Your task to perform on an android device: install app "Mercado Libre" Image 0: 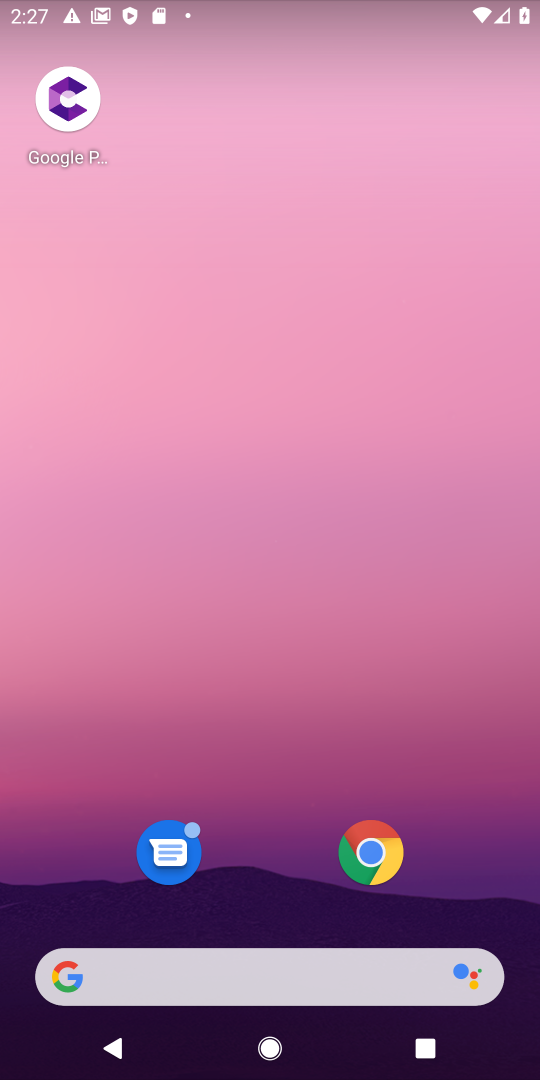
Step 0: drag from (260, 921) to (260, 64)
Your task to perform on an android device: install app "Mercado Libre" Image 1: 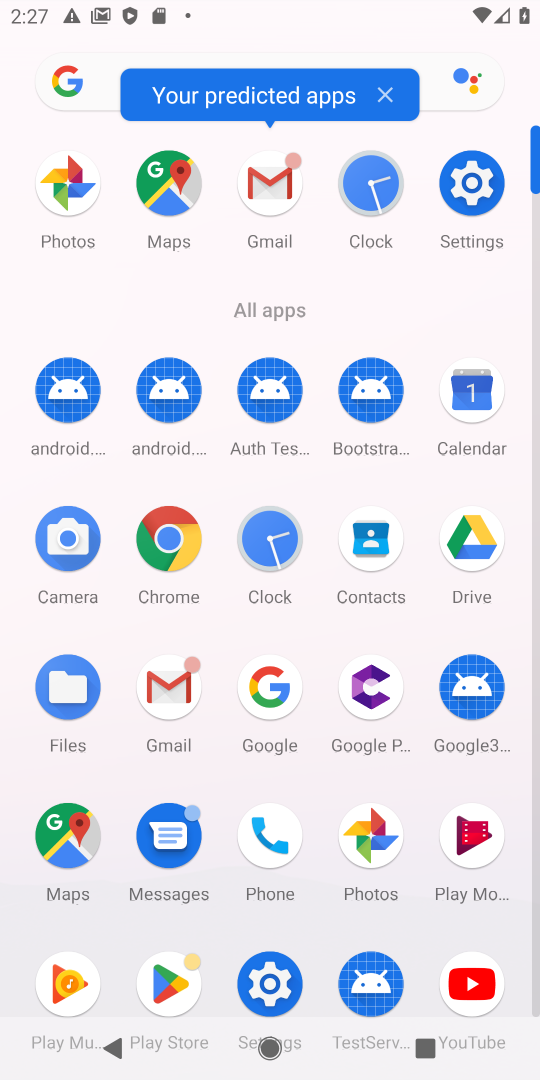
Step 1: click (167, 1010)
Your task to perform on an android device: install app "Mercado Libre" Image 2: 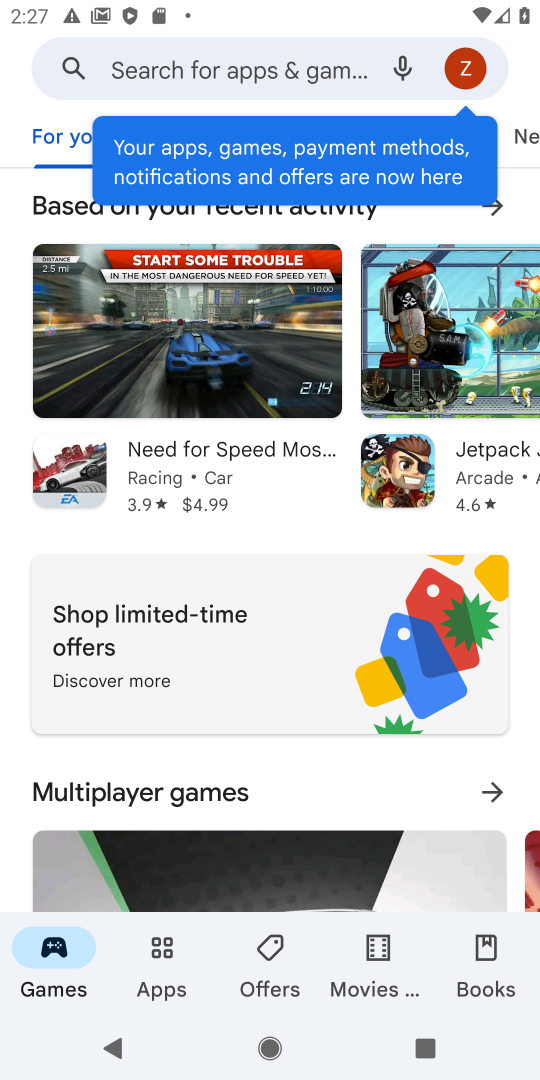
Step 2: click (287, 60)
Your task to perform on an android device: install app "Mercado Libre" Image 3: 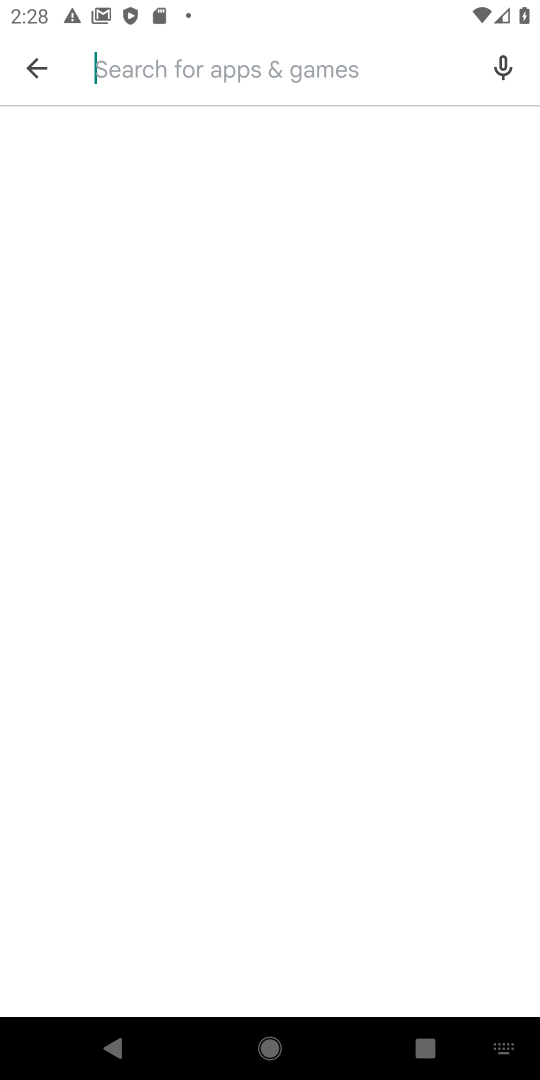
Step 3: type "mercado libre"
Your task to perform on an android device: install app "Mercado Libre" Image 4: 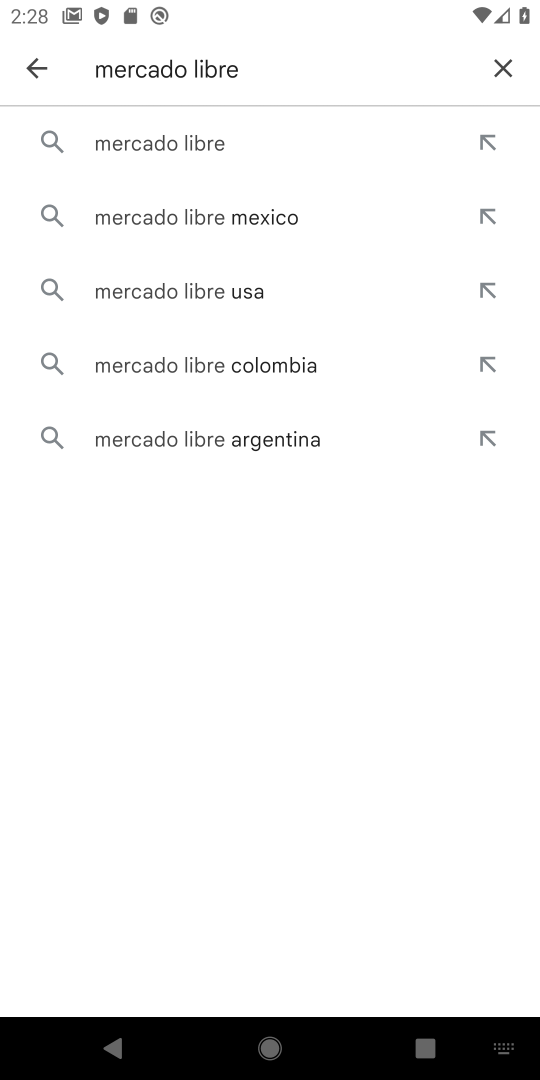
Step 4: click (401, 127)
Your task to perform on an android device: install app "Mercado Libre" Image 5: 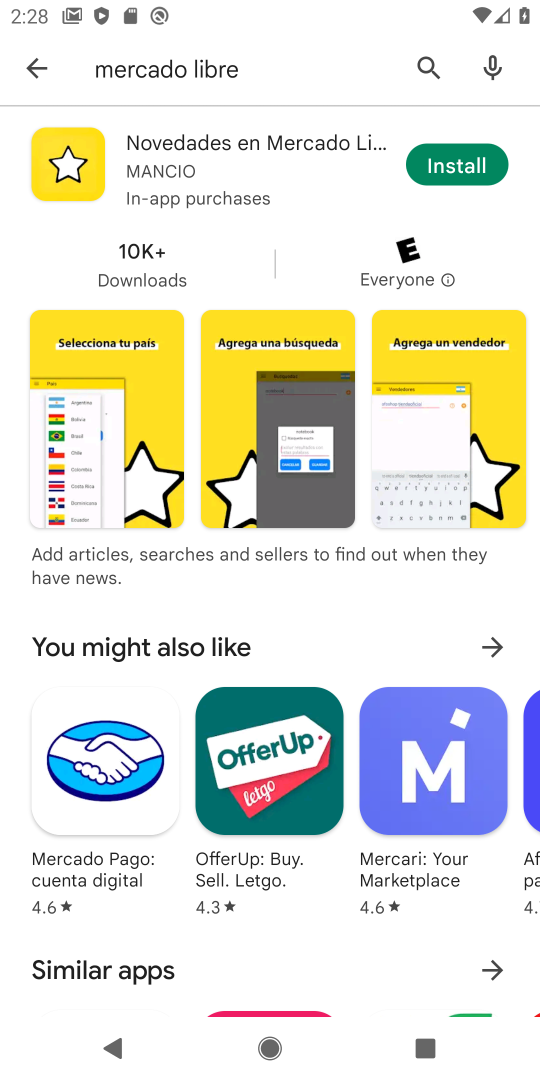
Step 5: click (165, 136)
Your task to perform on an android device: install app "Mercado Libre" Image 6: 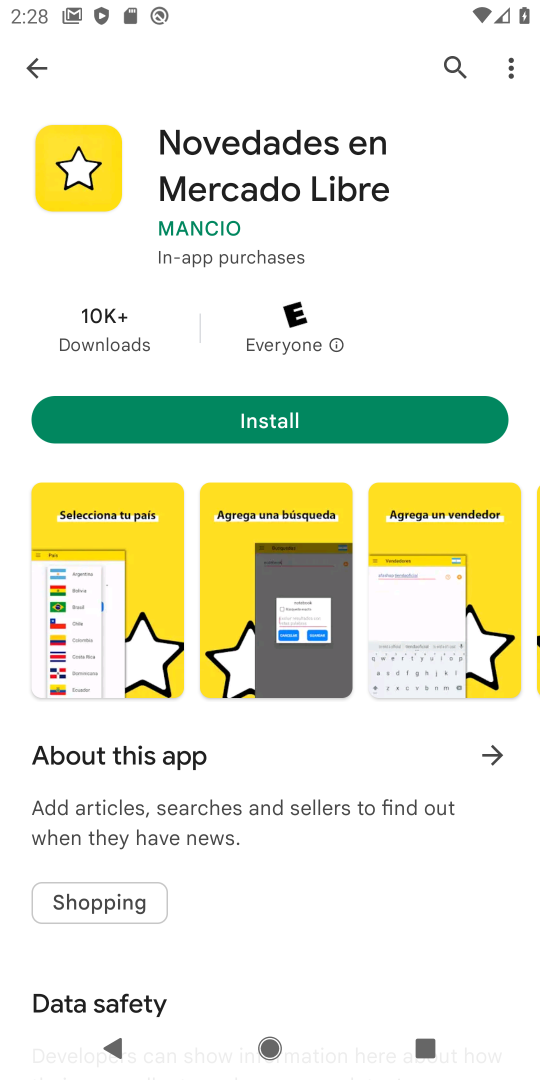
Step 6: click (183, 406)
Your task to perform on an android device: install app "Mercado Libre" Image 7: 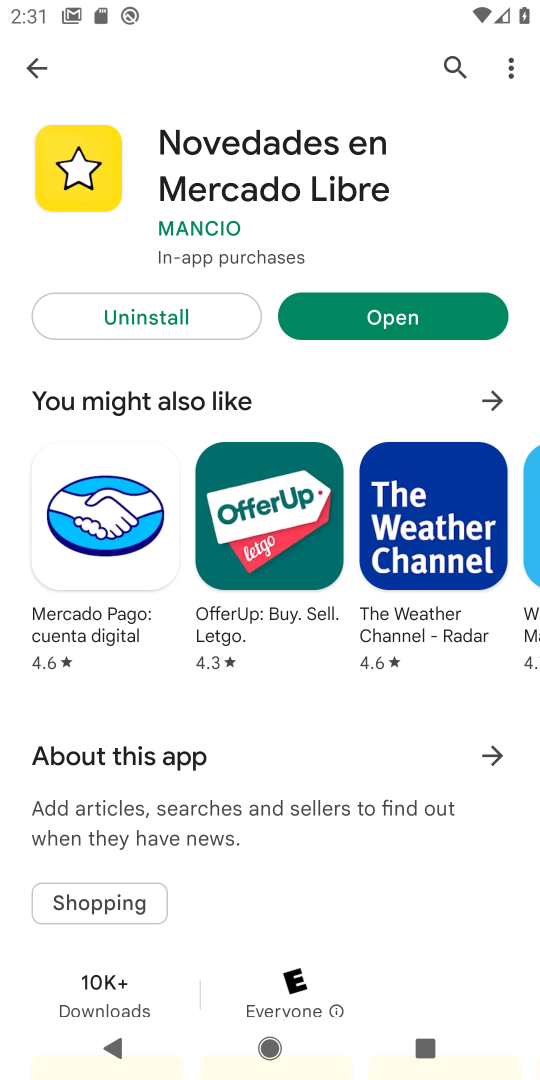
Step 7: task complete